Your task to perform on an android device: open a bookmark in the chrome app Image 0: 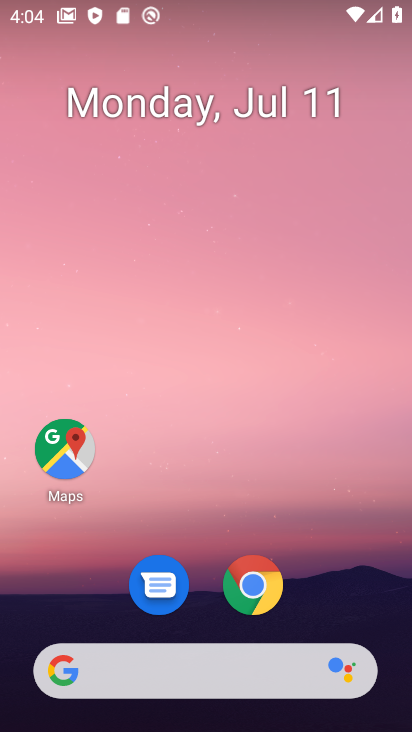
Step 0: click (252, 564)
Your task to perform on an android device: open a bookmark in the chrome app Image 1: 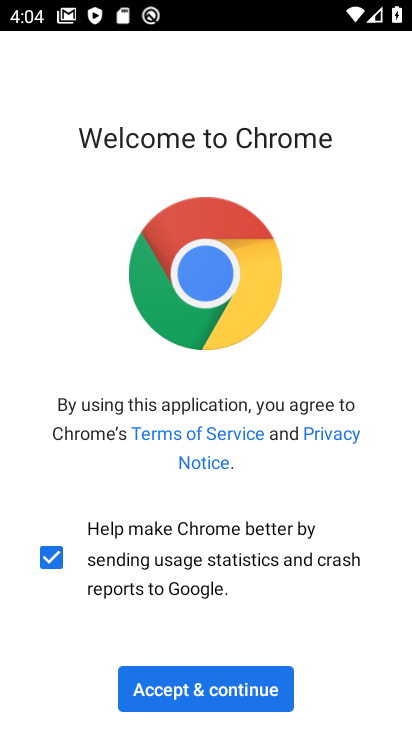
Step 1: click (274, 691)
Your task to perform on an android device: open a bookmark in the chrome app Image 2: 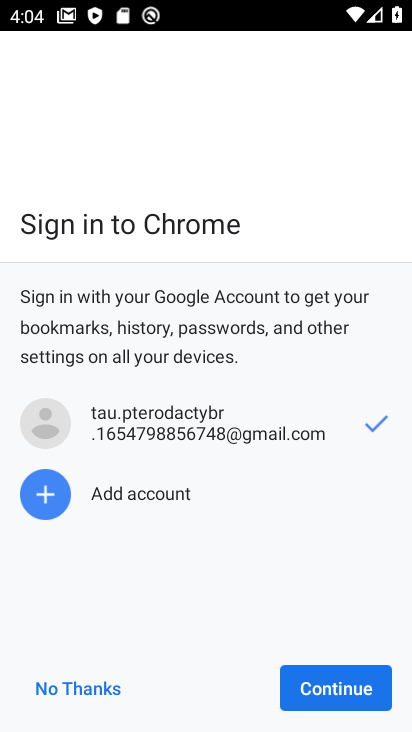
Step 2: click (331, 688)
Your task to perform on an android device: open a bookmark in the chrome app Image 3: 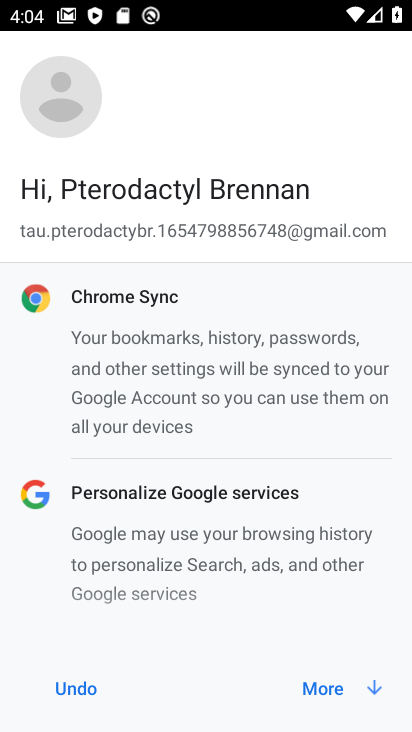
Step 3: click (329, 685)
Your task to perform on an android device: open a bookmark in the chrome app Image 4: 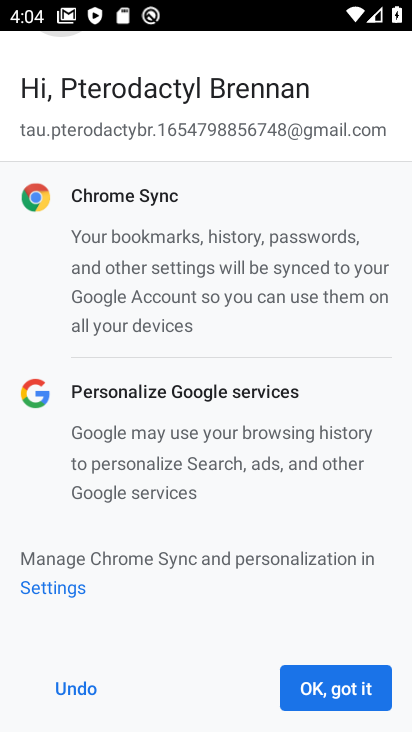
Step 4: click (331, 687)
Your task to perform on an android device: open a bookmark in the chrome app Image 5: 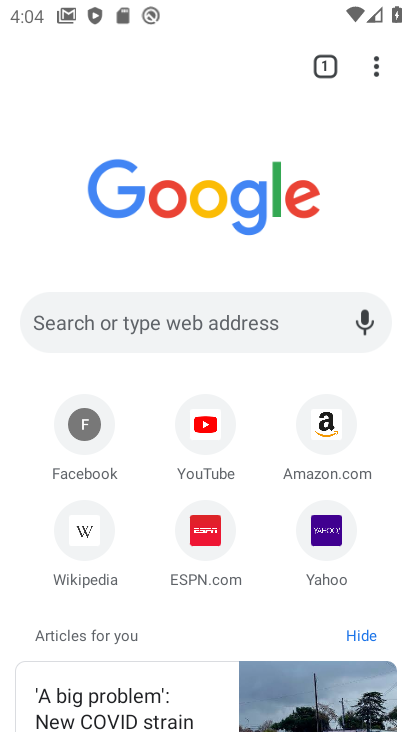
Step 5: click (373, 63)
Your task to perform on an android device: open a bookmark in the chrome app Image 6: 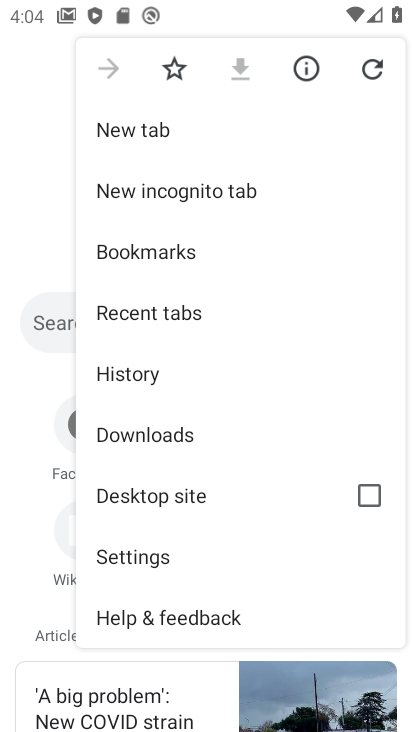
Step 6: click (197, 249)
Your task to perform on an android device: open a bookmark in the chrome app Image 7: 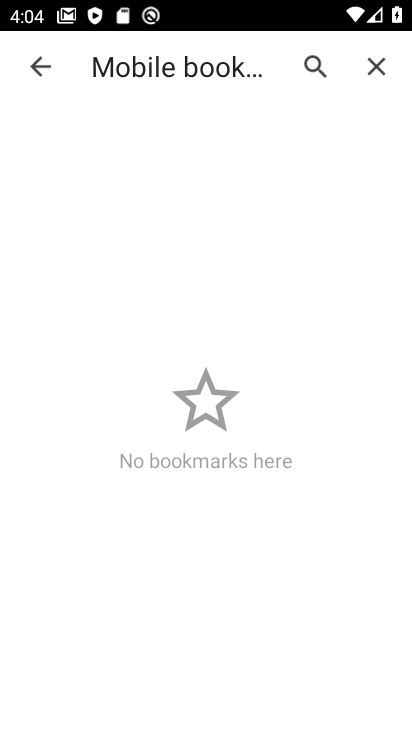
Step 7: task complete